Your task to perform on an android device: Open internet settings Image 0: 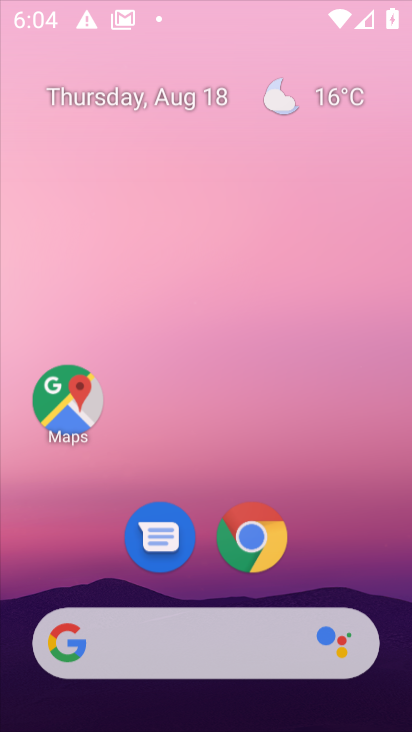
Step 0: press home button
Your task to perform on an android device: Open internet settings Image 1: 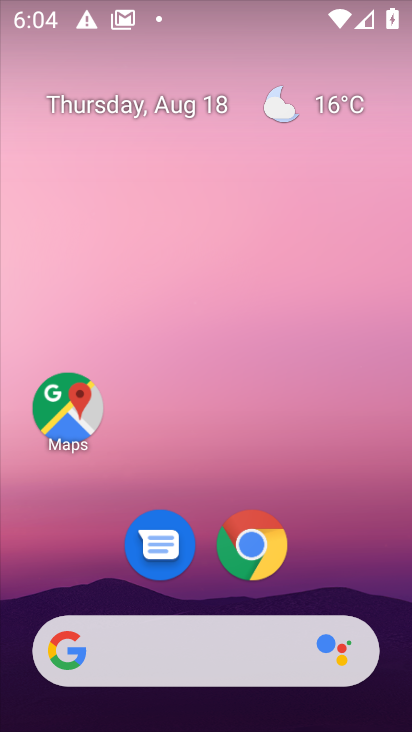
Step 1: drag from (321, 576) to (216, 95)
Your task to perform on an android device: Open internet settings Image 2: 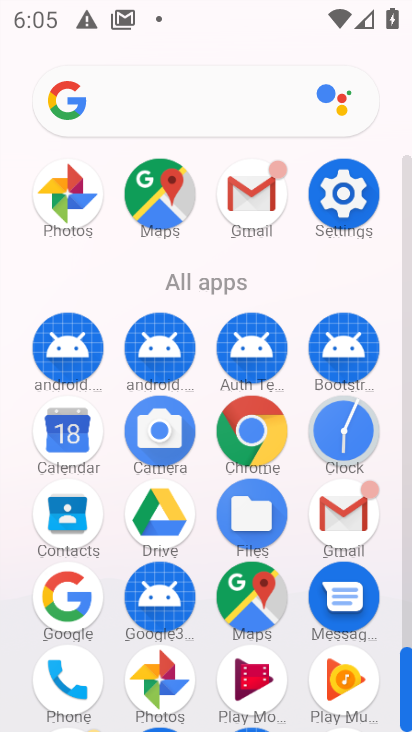
Step 2: click (344, 191)
Your task to perform on an android device: Open internet settings Image 3: 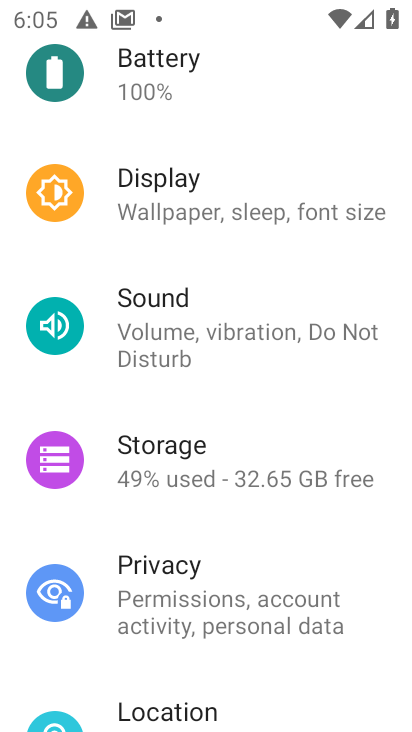
Step 3: drag from (236, 139) to (303, 522)
Your task to perform on an android device: Open internet settings Image 4: 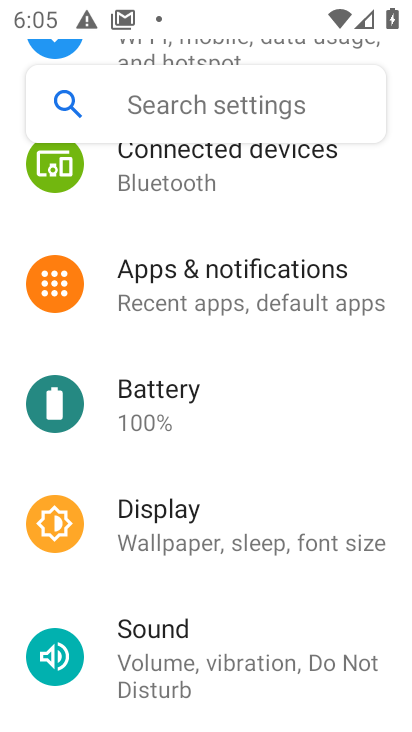
Step 4: drag from (206, 233) to (242, 566)
Your task to perform on an android device: Open internet settings Image 5: 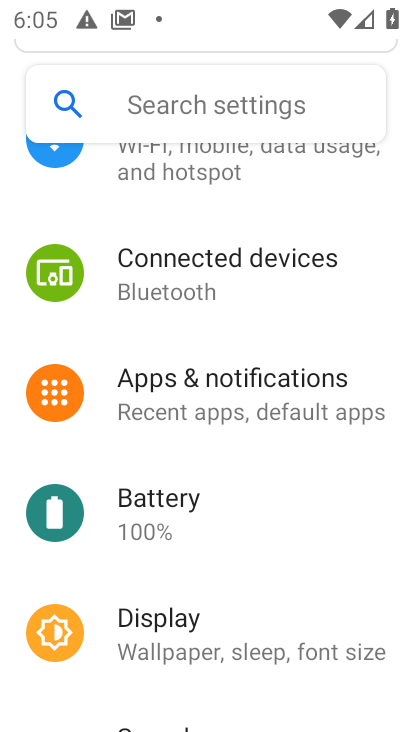
Step 5: drag from (217, 208) to (293, 552)
Your task to perform on an android device: Open internet settings Image 6: 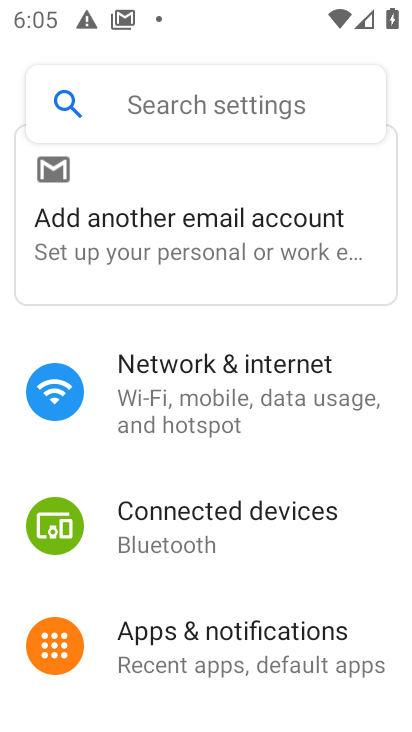
Step 6: click (189, 359)
Your task to perform on an android device: Open internet settings Image 7: 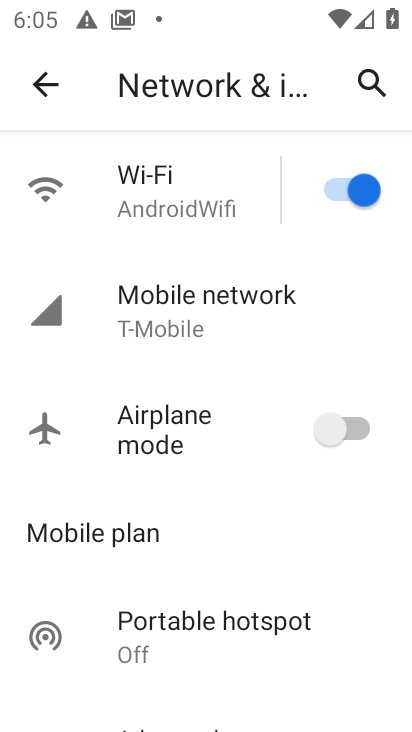
Step 7: click (183, 290)
Your task to perform on an android device: Open internet settings Image 8: 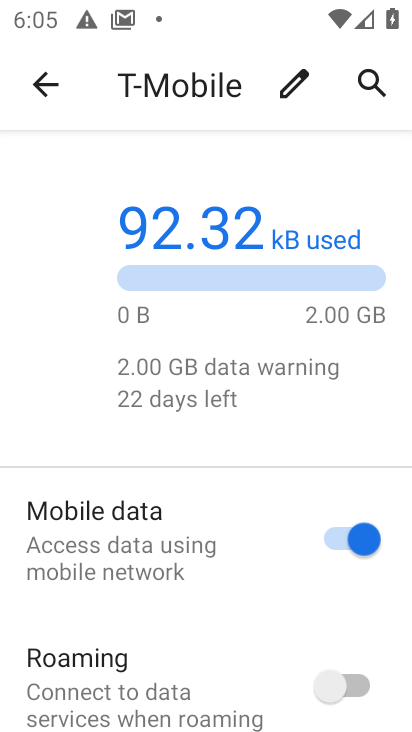
Step 8: task complete